Your task to perform on an android device: Go to accessibility settings Image 0: 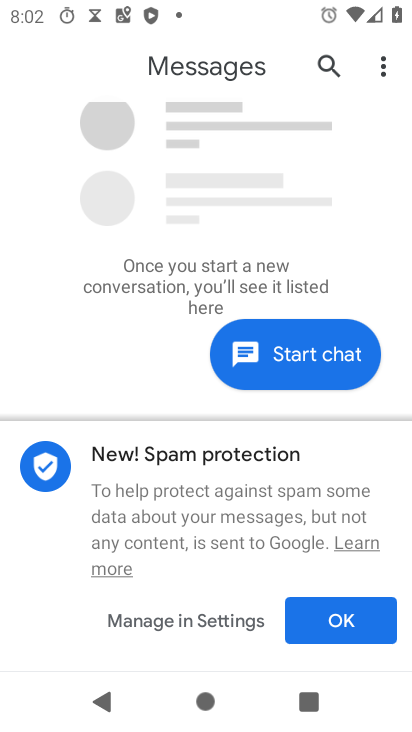
Step 0: press home button
Your task to perform on an android device: Go to accessibility settings Image 1: 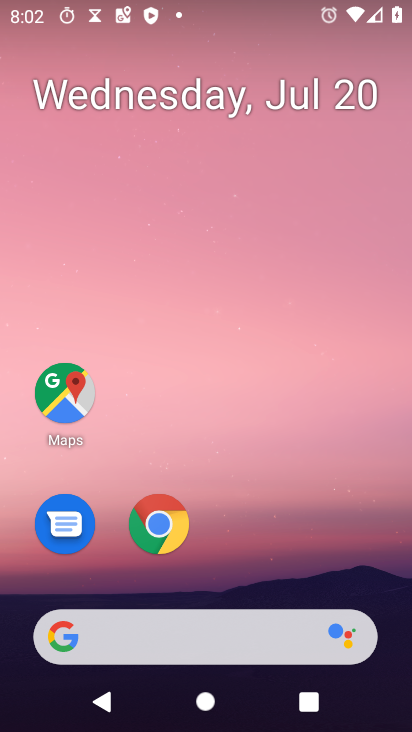
Step 1: drag from (191, 633) to (278, 1)
Your task to perform on an android device: Go to accessibility settings Image 2: 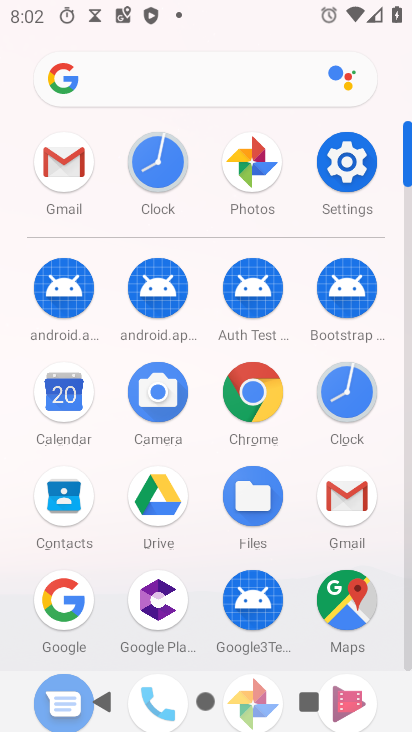
Step 2: click (361, 157)
Your task to perform on an android device: Go to accessibility settings Image 3: 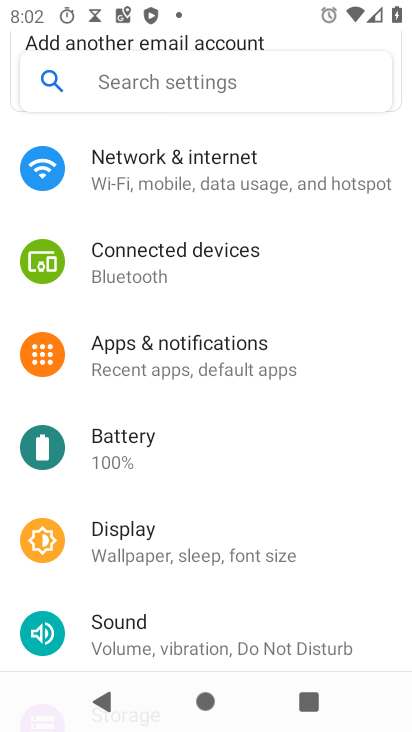
Step 3: drag from (228, 616) to (405, 96)
Your task to perform on an android device: Go to accessibility settings Image 4: 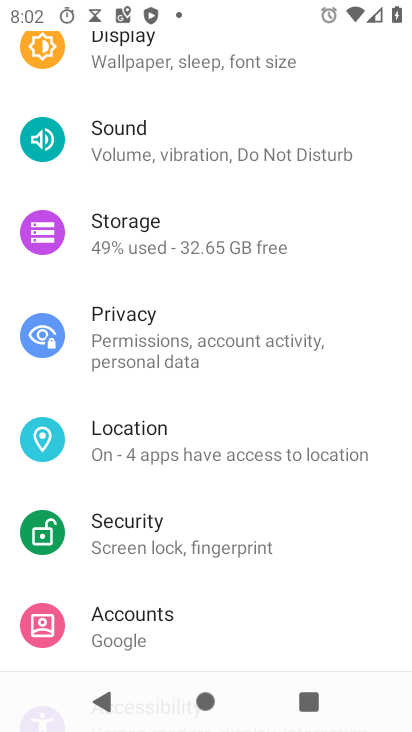
Step 4: drag from (252, 591) to (406, 183)
Your task to perform on an android device: Go to accessibility settings Image 5: 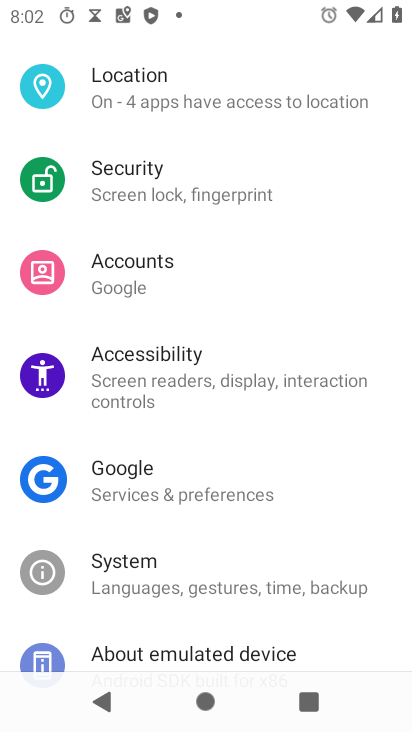
Step 5: click (150, 360)
Your task to perform on an android device: Go to accessibility settings Image 6: 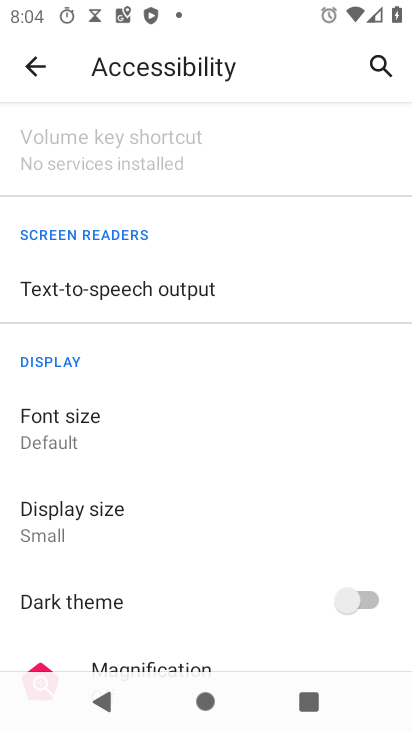
Step 6: task complete